Your task to perform on an android device: turn notification dots on Image 0: 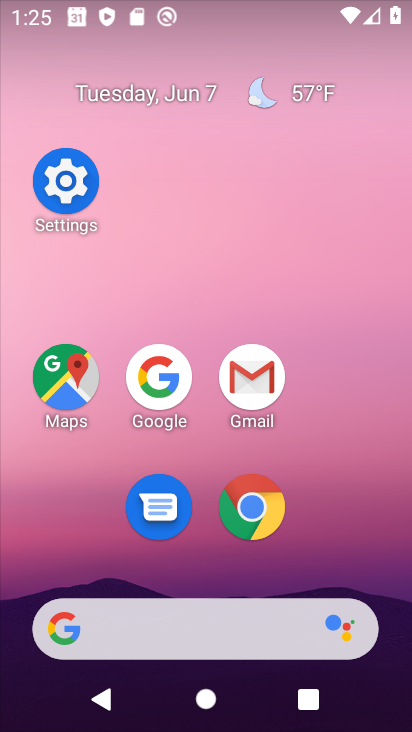
Step 0: click (71, 181)
Your task to perform on an android device: turn notification dots on Image 1: 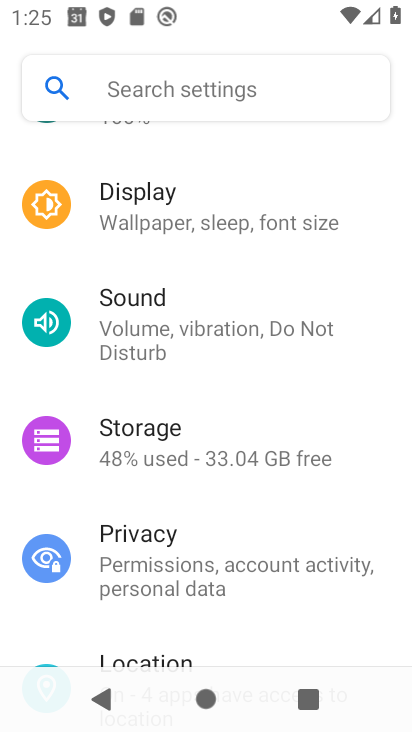
Step 1: drag from (210, 184) to (269, 592)
Your task to perform on an android device: turn notification dots on Image 2: 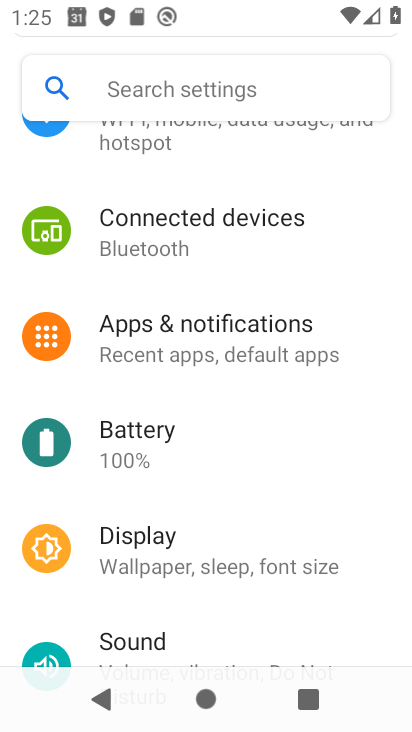
Step 2: click (287, 343)
Your task to perform on an android device: turn notification dots on Image 3: 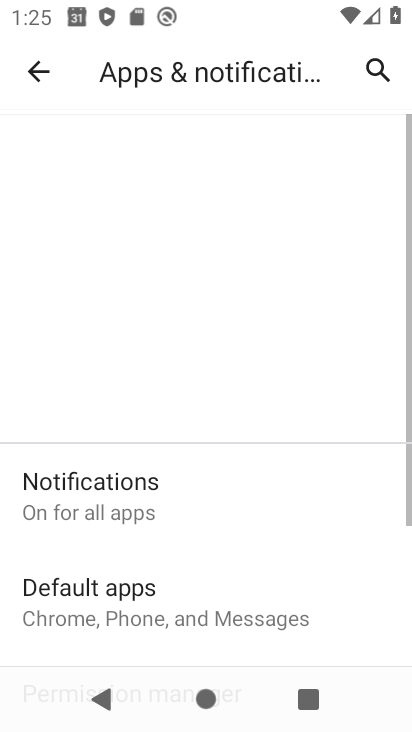
Step 3: drag from (255, 581) to (210, 224)
Your task to perform on an android device: turn notification dots on Image 4: 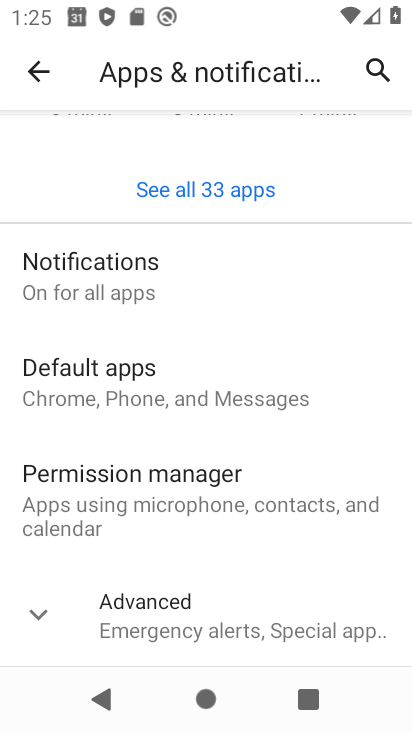
Step 4: click (221, 606)
Your task to perform on an android device: turn notification dots on Image 5: 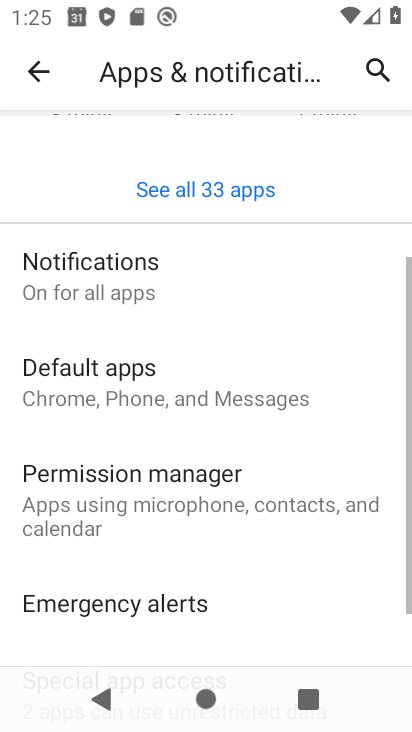
Step 5: drag from (223, 605) to (209, 205)
Your task to perform on an android device: turn notification dots on Image 6: 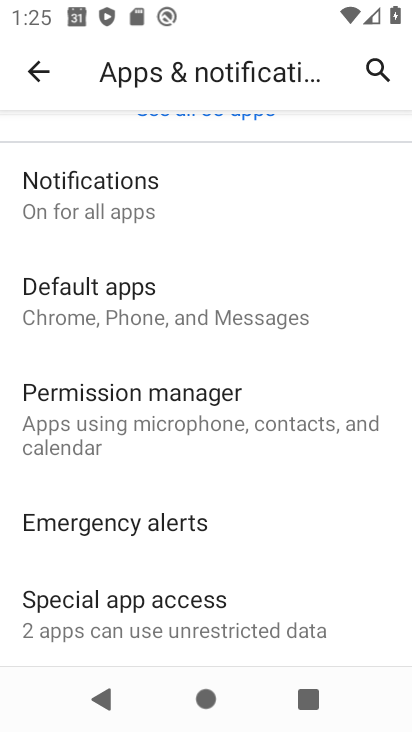
Step 6: click (209, 218)
Your task to perform on an android device: turn notification dots on Image 7: 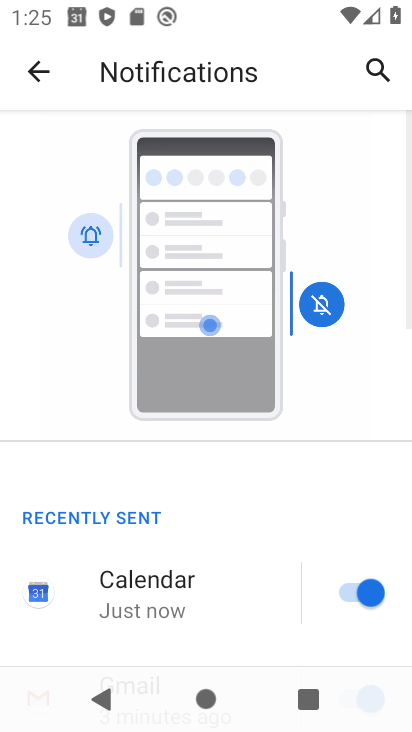
Step 7: drag from (193, 570) to (202, 222)
Your task to perform on an android device: turn notification dots on Image 8: 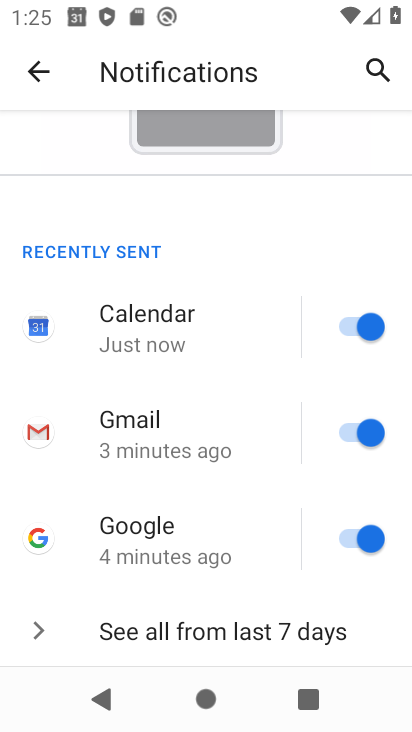
Step 8: drag from (222, 577) to (250, 243)
Your task to perform on an android device: turn notification dots on Image 9: 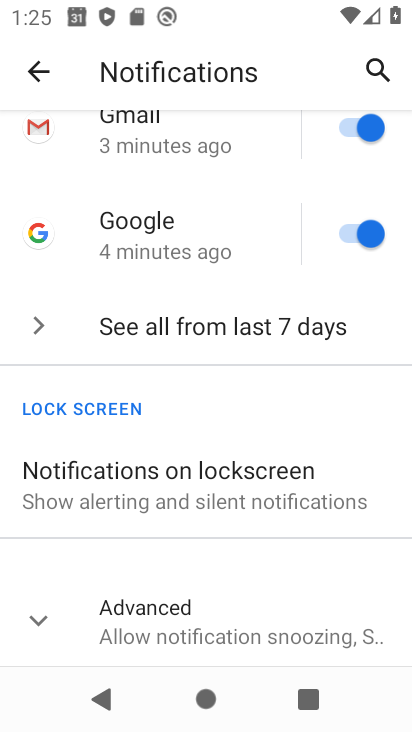
Step 9: click (189, 612)
Your task to perform on an android device: turn notification dots on Image 10: 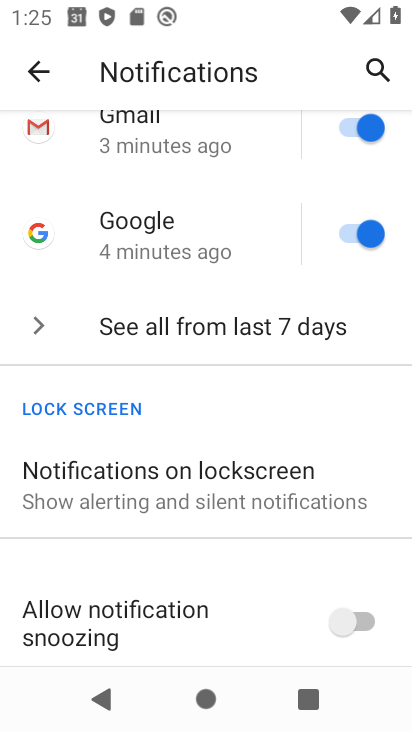
Step 10: task complete